Your task to perform on an android device: Open calendar and show me the second week of next month Image 0: 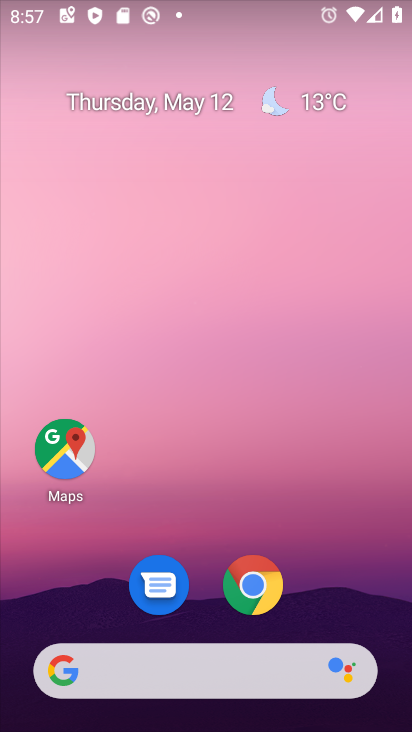
Step 0: drag from (226, 465) to (213, 94)
Your task to perform on an android device: Open calendar and show me the second week of next month Image 1: 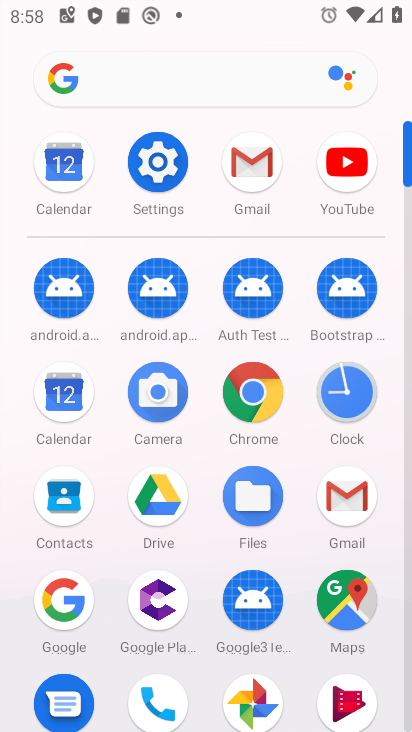
Step 1: click (64, 160)
Your task to perform on an android device: Open calendar and show me the second week of next month Image 2: 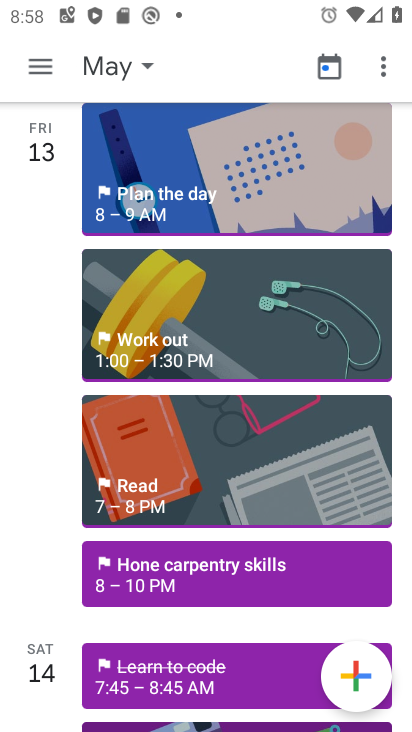
Step 2: click (46, 73)
Your task to perform on an android device: Open calendar and show me the second week of next month Image 3: 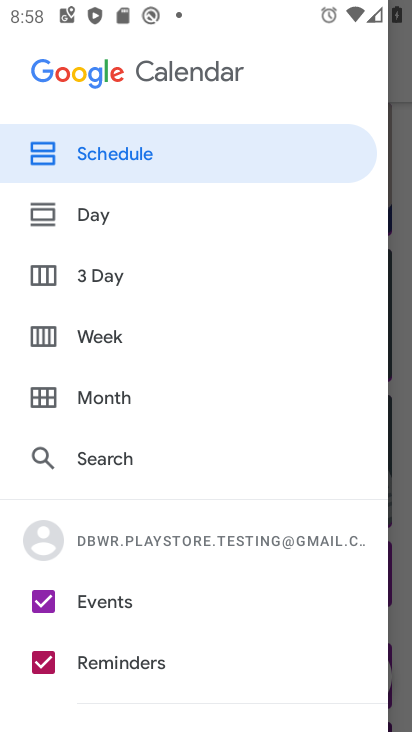
Step 3: click (113, 390)
Your task to perform on an android device: Open calendar and show me the second week of next month Image 4: 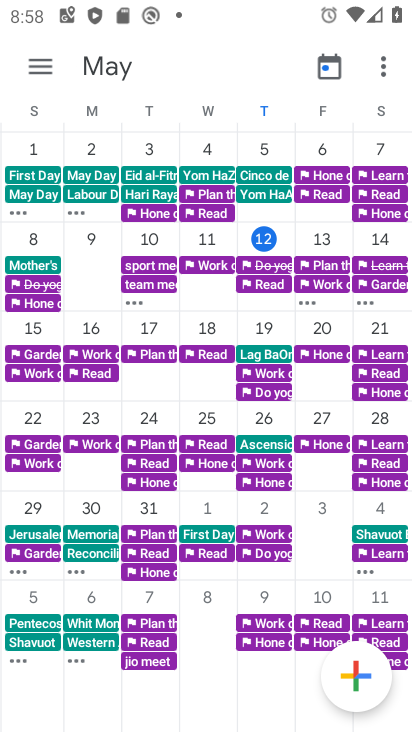
Step 4: drag from (371, 418) to (24, 367)
Your task to perform on an android device: Open calendar and show me the second week of next month Image 5: 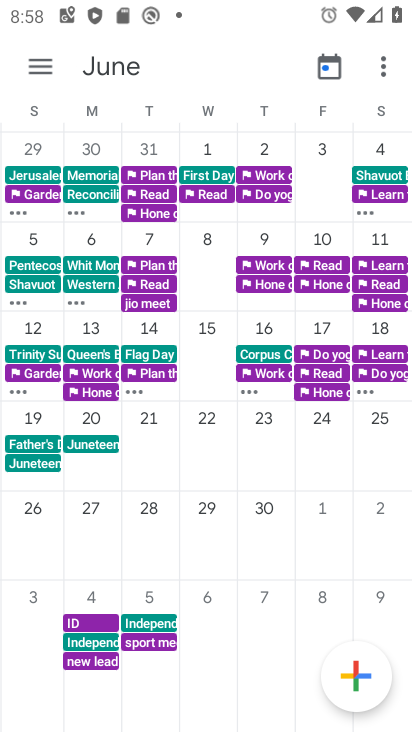
Step 5: click (25, 314)
Your task to perform on an android device: Open calendar and show me the second week of next month Image 6: 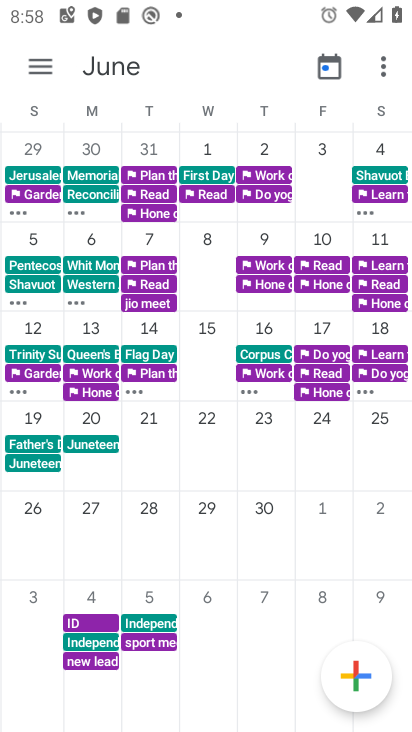
Step 6: click (35, 322)
Your task to perform on an android device: Open calendar and show me the second week of next month Image 7: 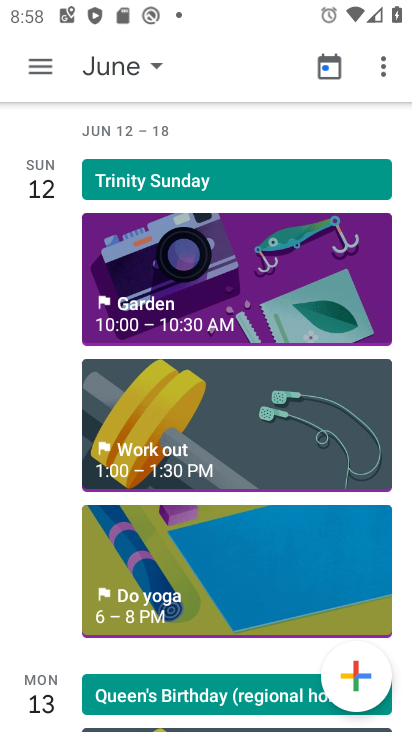
Step 7: click (33, 63)
Your task to perform on an android device: Open calendar and show me the second week of next month Image 8: 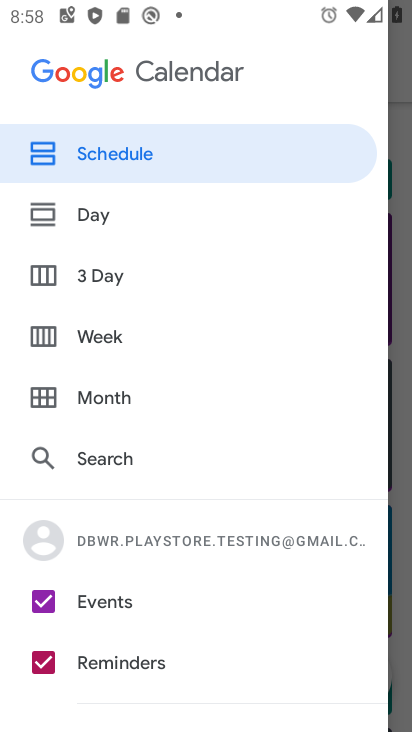
Step 8: click (105, 327)
Your task to perform on an android device: Open calendar and show me the second week of next month Image 9: 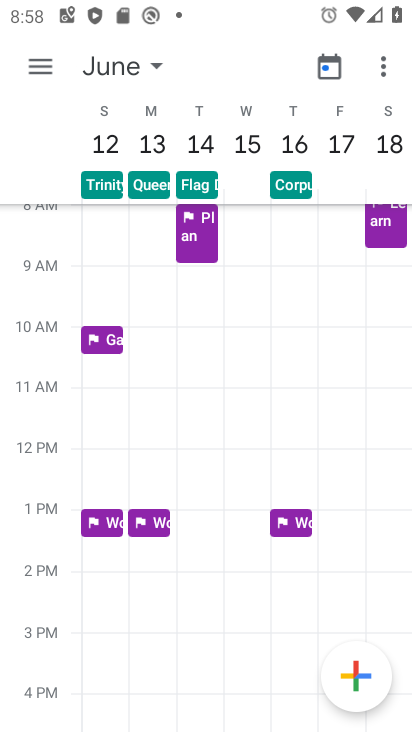
Step 9: task complete